Your task to perform on an android device: Open Google Chrome Image 0: 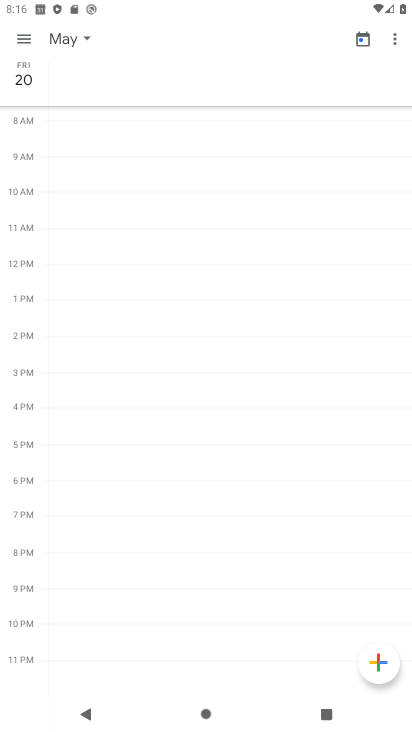
Step 0: press home button
Your task to perform on an android device: Open Google Chrome Image 1: 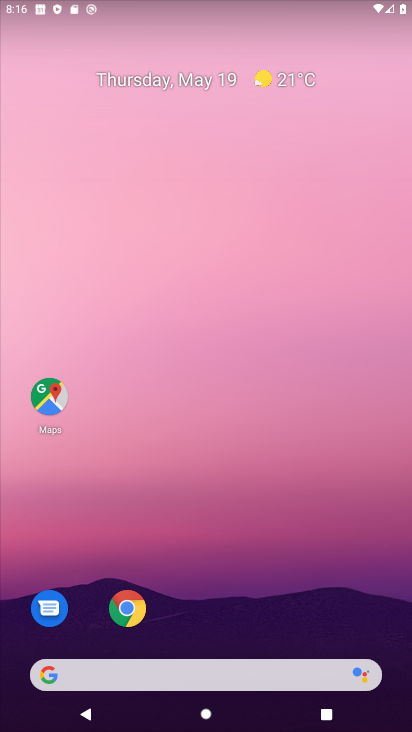
Step 1: click (135, 608)
Your task to perform on an android device: Open Google Chrome Image 2: 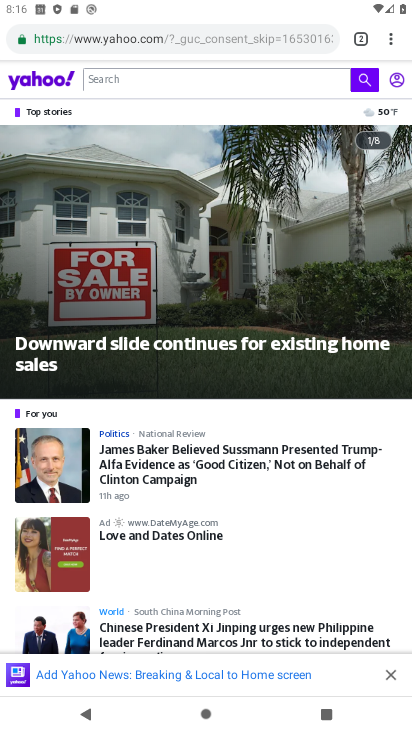
Step 2: click (388, 38)
Your task to perform on an android device: Open Google Chrome Image 3: 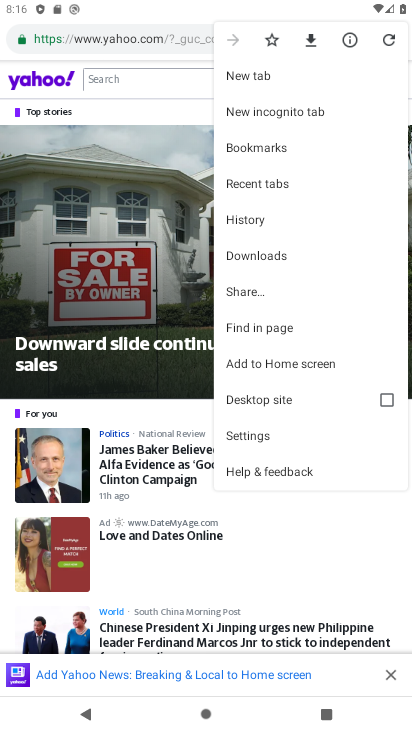
Step 3: click (258, 436)
Your task to perform on an android device: Open Google Chrome Image 4: 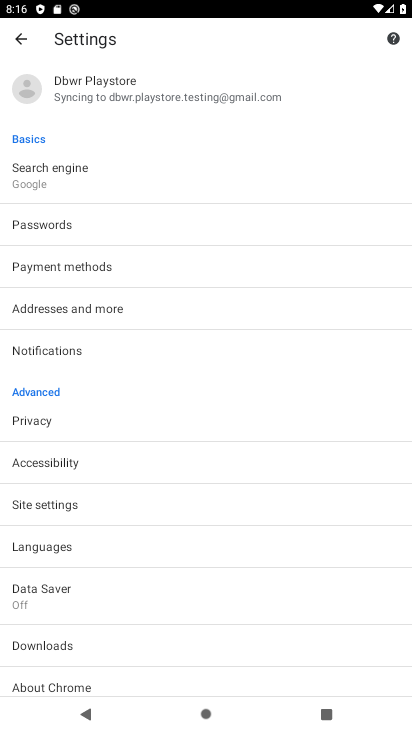
Step 4: click (18, 34)
Your task to perform on an android device: Open Google Chrome Image 5: 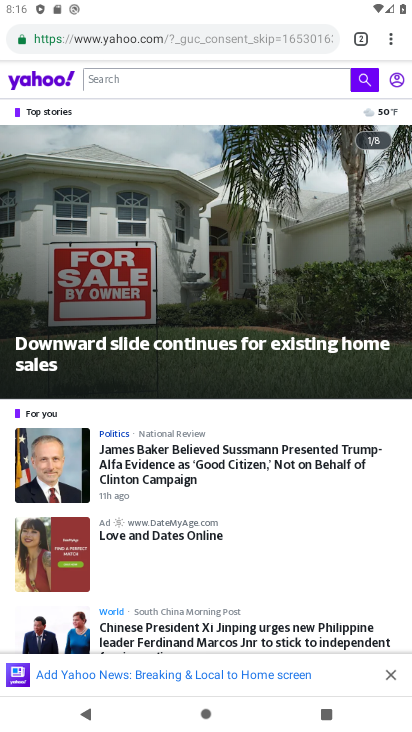
Step 5: task complete